Your task to perform on an android device: Open the map Image 0: 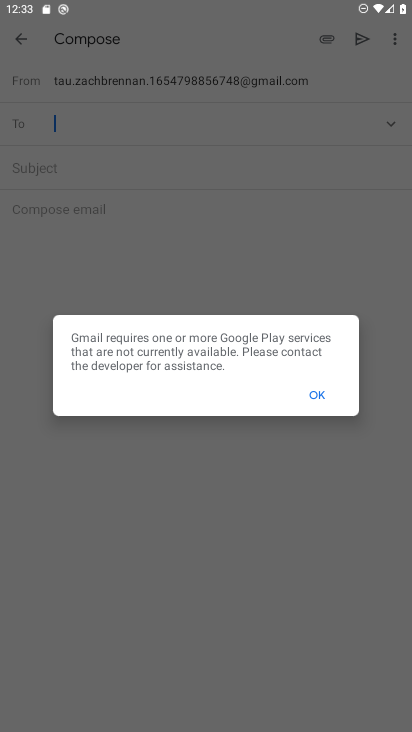
Step 0: press home button
Your task to perform on an android device: Open the map Image 1: 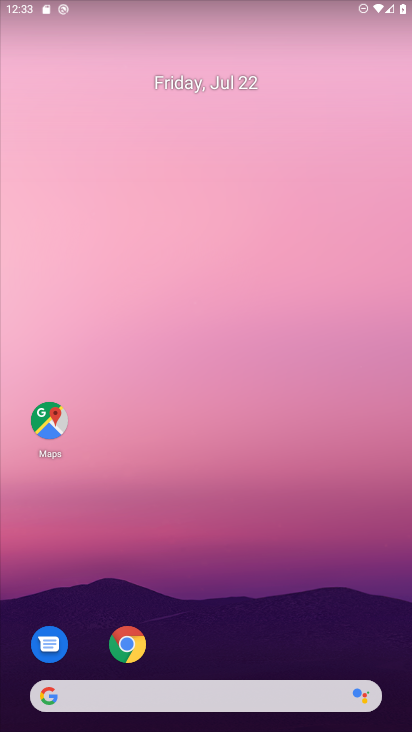
Step 1: click (57, 425)
Your task to perform on an android device: Open the map Image 2: 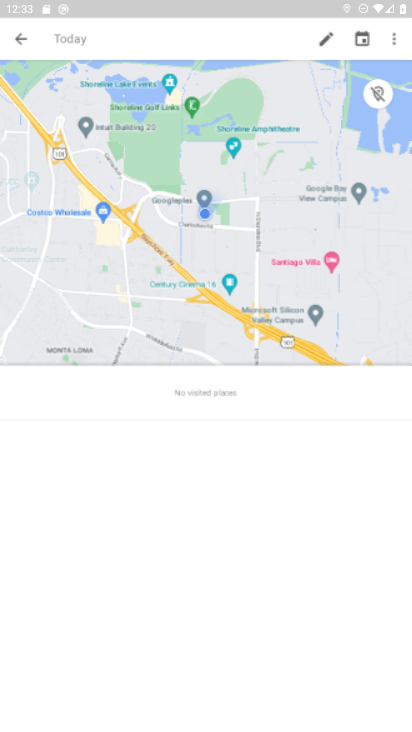
Step 2: task complete